Your task to perform on an android device: What's on my calendar today? Image 0: 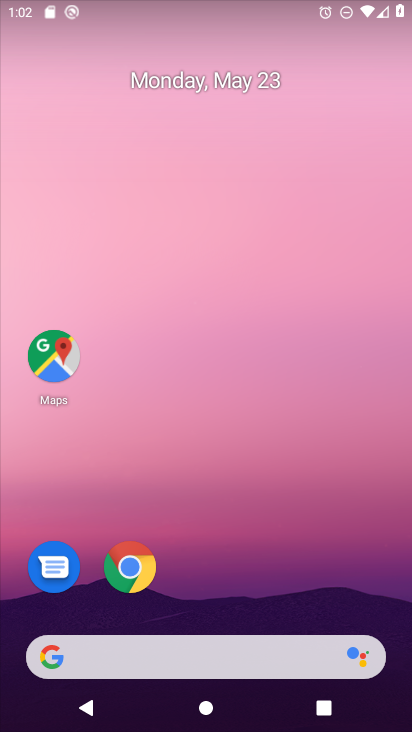
Step 0: click (197, 84)
Your task to perform on an android device: What's on my calendar today? Image 1: 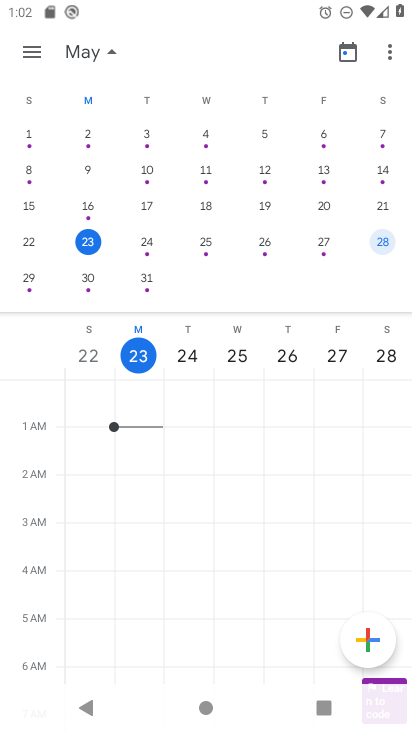
Step 1: task complete